Your task to perform on an android device: toggle show notifications on the lock screen Image 0: 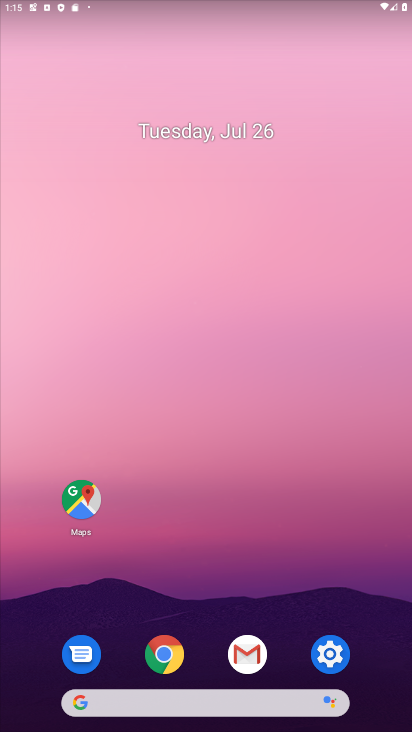
Step 0: drag from (299, 695) to (176, 239)
Your task to perform on an android device: toggle show notifications on the lock screen Image 1: 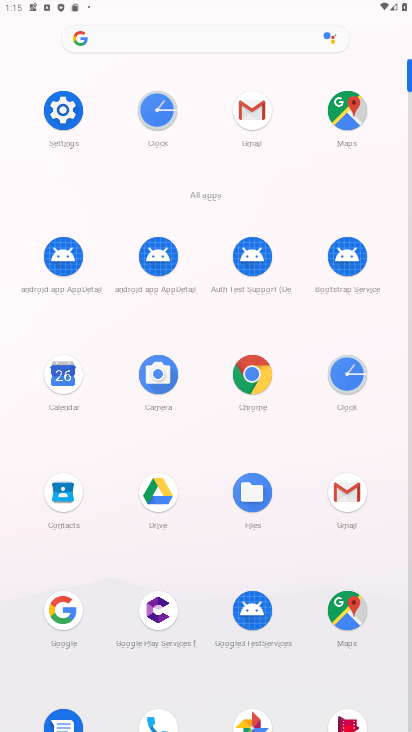
Step 1: click (49, 127)
Your task to perform on an android device: toggle show notifications on the lock screen Image 2: 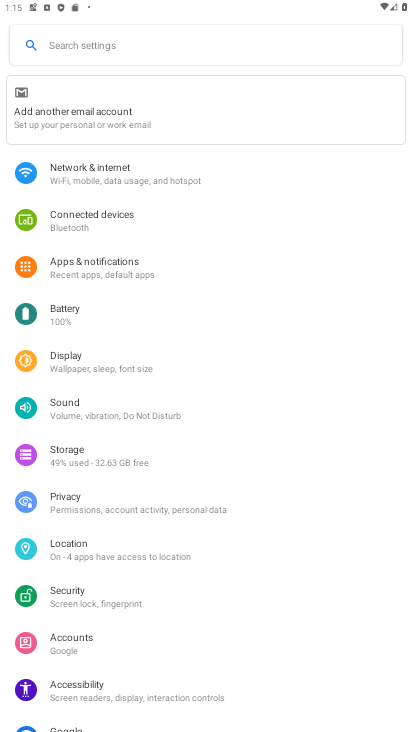
Step 2: click (65, 53)
Your task to perform on an android device: toggle show notifications on the lock screen Image 3: 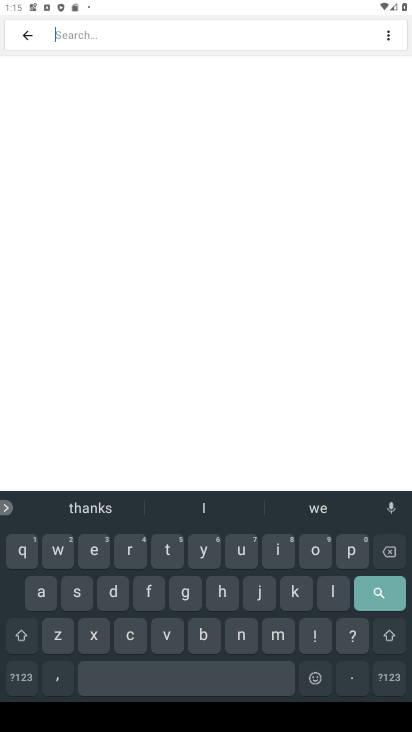
Step 3: click (242, 634)
Your task to perform on an android device: toggle show notifications on the lock screen Image 4: 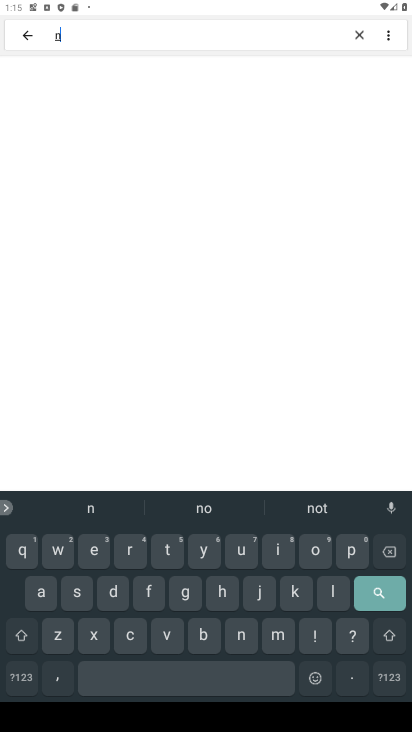
Step 4: click (316, 575)
Your task to perform on an android device: toggle show notifications on the lock screen Image 5: 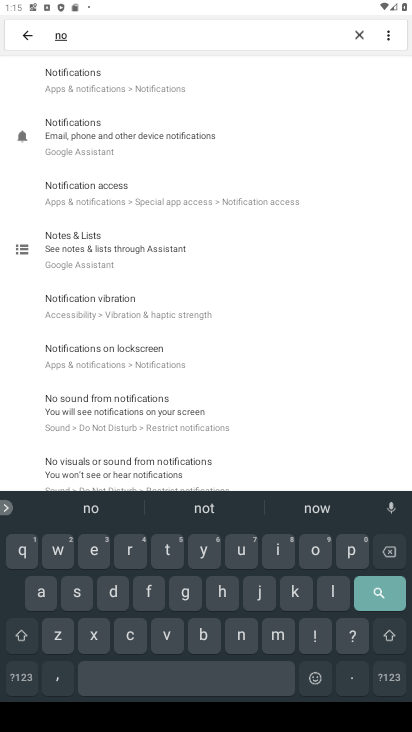
Step 5: click (87, 87)
Your task to perform on an android device: toggle show notifications on the lock screen Image 6: 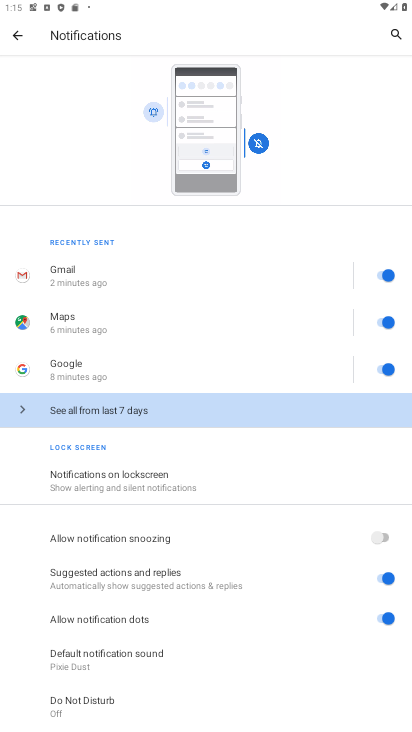
Step 6: click (116, 477)
Your task to perform on an android device: toggle show notifications on the lock screen Image 7: 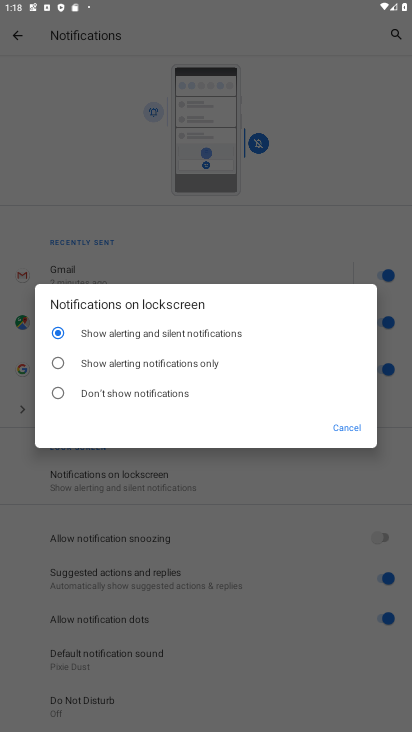
Step 7: task complete